Your task to perform on an android device: install app "Lyft - Rideshare, Bikes, Scooters & Transit" Image 0: 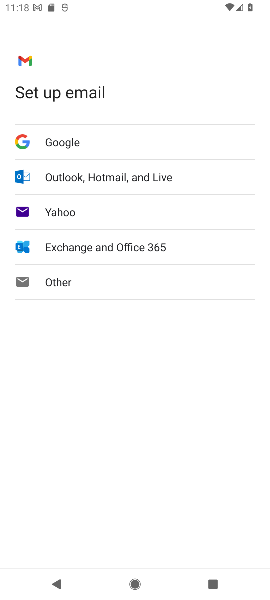
Step 0: press home button
Your task to perform on an android device: install app "Lyft - Rideshare, Bikes, Scooters & Transit" Image 1: 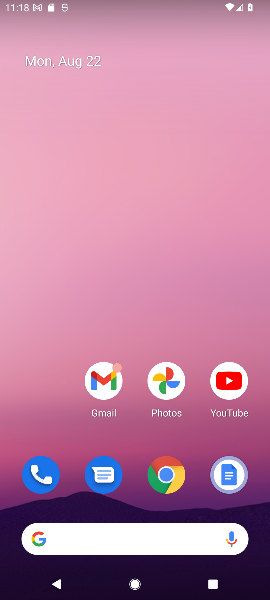
Step 1: drag from (132, 484) to (147, 48)
Your task to perform on an android device: install app "Lyft - Rideshare, Bikes, Scooters & Transit" Image 2: 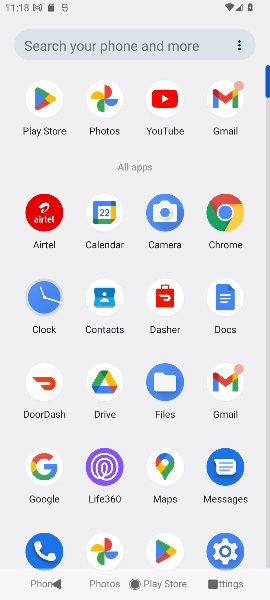
Step 2: click (38, 98)
Your task to perform on an android device: install app "Lyft - Rideshare, Bikes, Scooters & Transit" Image 3: 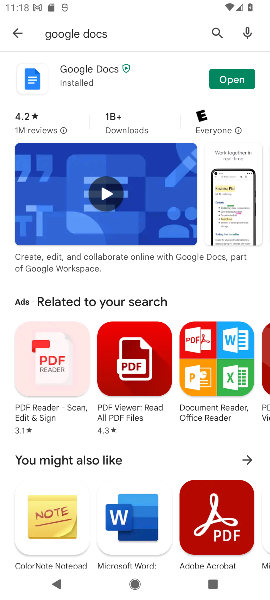
Step 3: click (13, 33)
Your task to perform on an android device: install app "Lyft - Rideshare, Bikes, Scooters & Transit" Image 4: 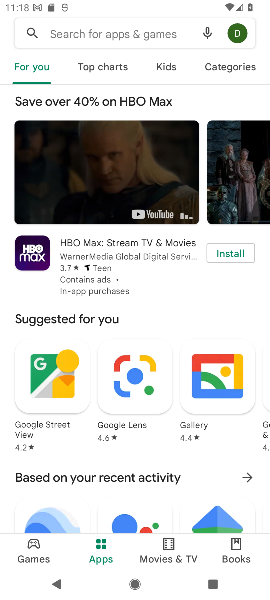
Step 4: click (111, 36)
Your task to perform on an android device: install app "Lyft - Rideshare, Bikes, Scooters & Transit" Image 5: 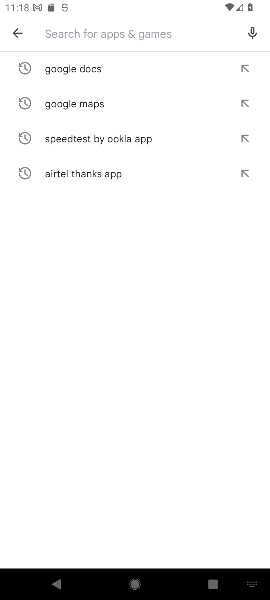
Step 5: type "Lyft"
Your task to perform on an android device: install app "Lyft - Rideshare, Bikes, Scooters & Transit" Image 6: 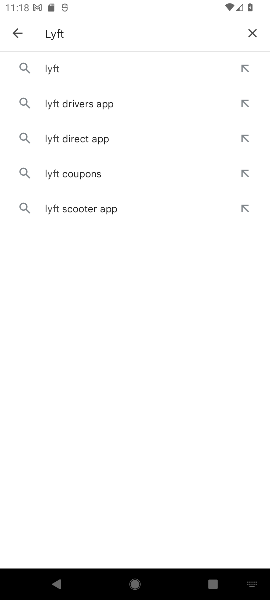
Step 6: click (54, 69)
Your task to perform on an android device: install app "Lyft - Rideshare, Bikes, Scooters & Transit" Image 7: 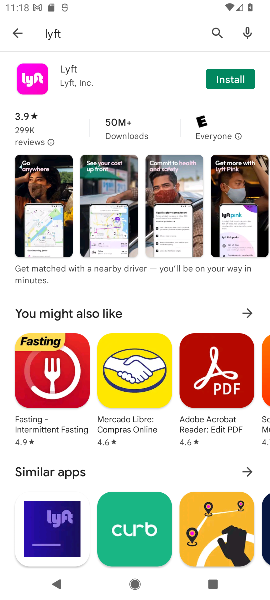
Step 7: click (228, 84)
Your task to perform on an android device: install app "Lyft - Rideshare, Bikes, Scooters & Transit" Image 8: 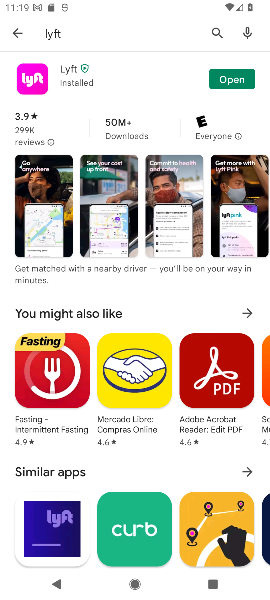
Step 8: click (228, 84)
Your task to perform on an android device: install app "Lyft - Rideshare, Bikes, Scooters & Transit" Image 9: 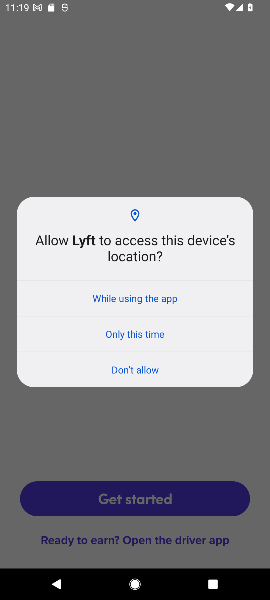
Step 9: click (139, 292)
Your task to perform on an android device: install app "Lyft - Rideshare, Bikes, Scooters & Transit" Image 10: 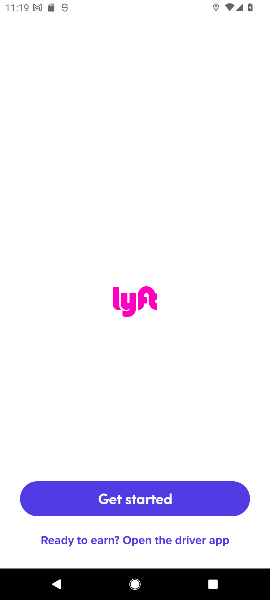
Step 10: task complete